Your task to perform on an android device: add a contact Image 0: 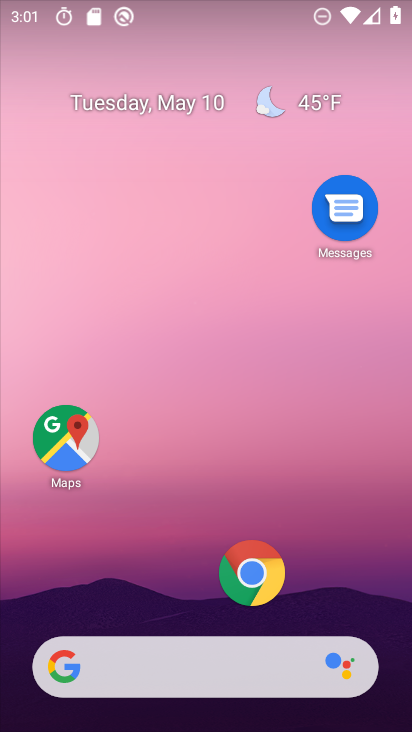
Step 0: drag from (208, 609) to (193, 307)
Your task to perform on an android device: add a contact Image 1: 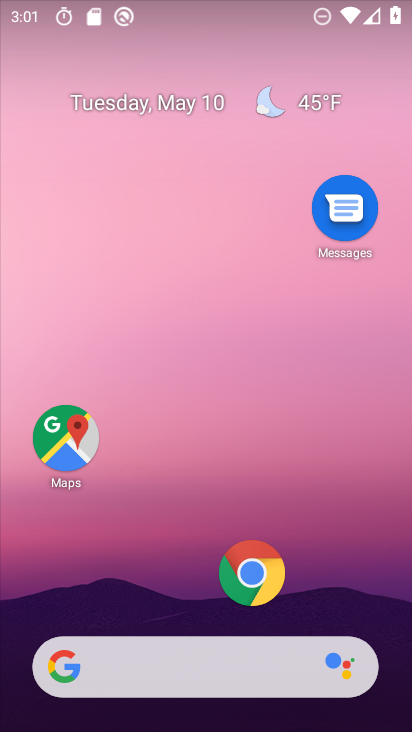
Step 1: drag from (230, 621) to (318, 146)
Your task to perform on an android device: add a contact Image 2: 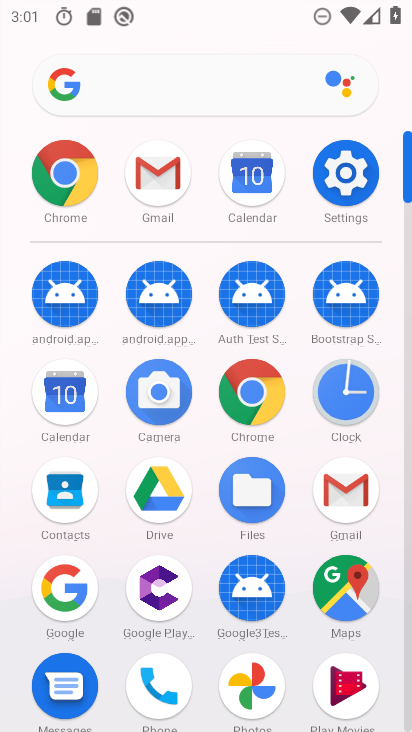
Step 2: click (59, 474)
Your task to perform on an android device: add a contact Image 3: 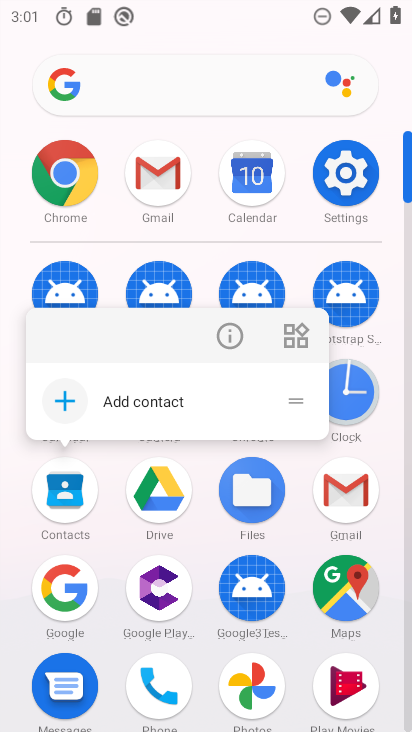
Step 3: click (214, 343)
Your task to perform on an android device: add a contact Image 4: 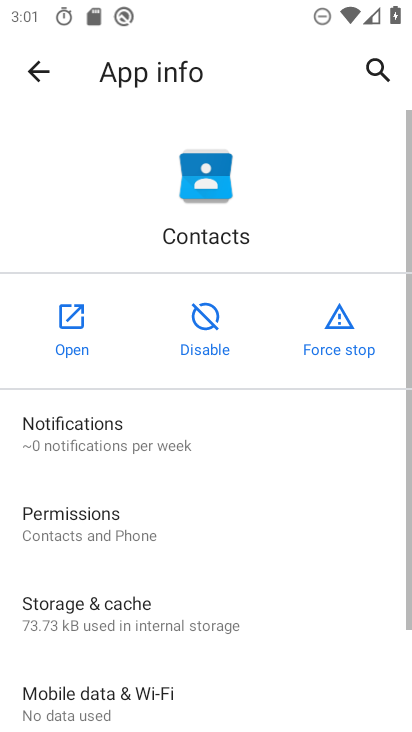
Step 4: click (86, 342)
Your task to perform on an android device: add a contact Image 5: 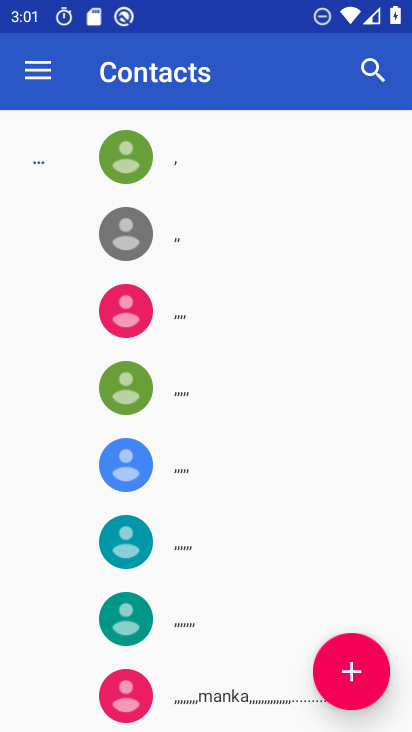
Step 5: drag from (202, 374) to (200, 536)
Your task to perform on an android device: add a contact Image 6: 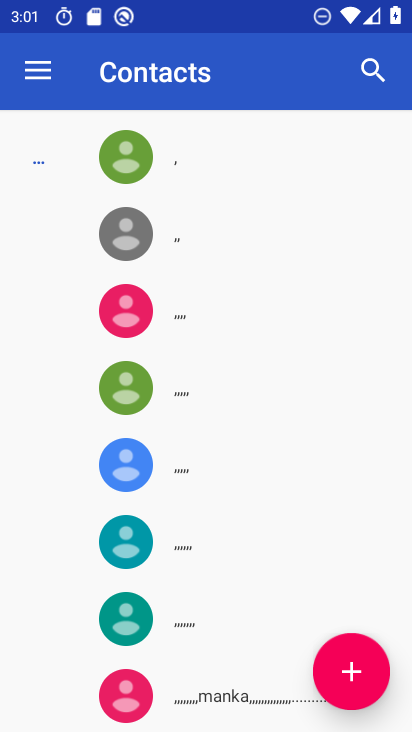
Step 6: click (358, 669)
Your task to perform on an android device: add a contact Image 7: 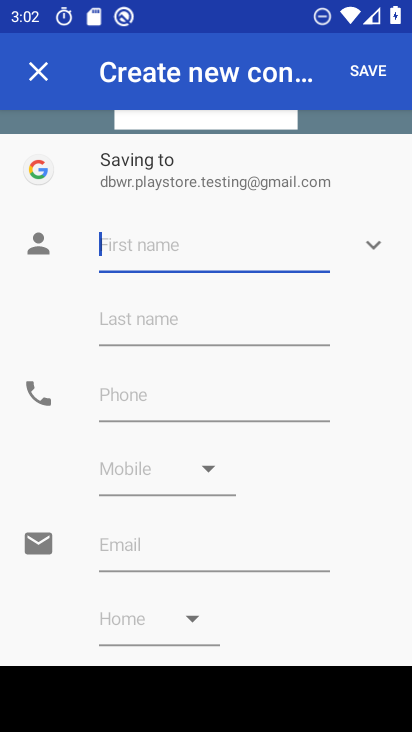
Step 7: click (180, 234)
Your task to perform on an android device: add a contact Image 8: 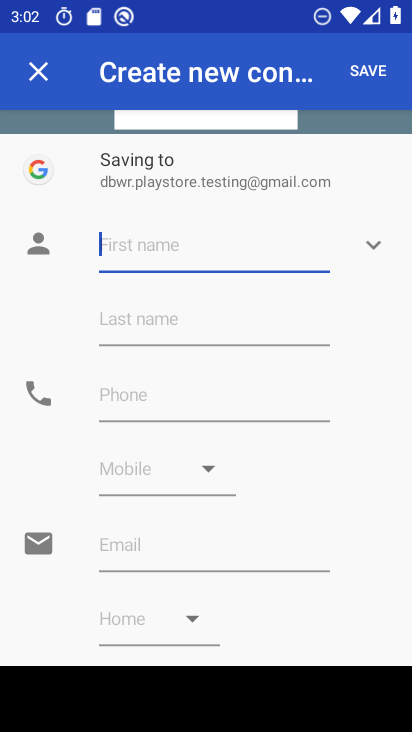
Step 8: type "asdf"
Your task to perform on an android device: add a contact Image 9: 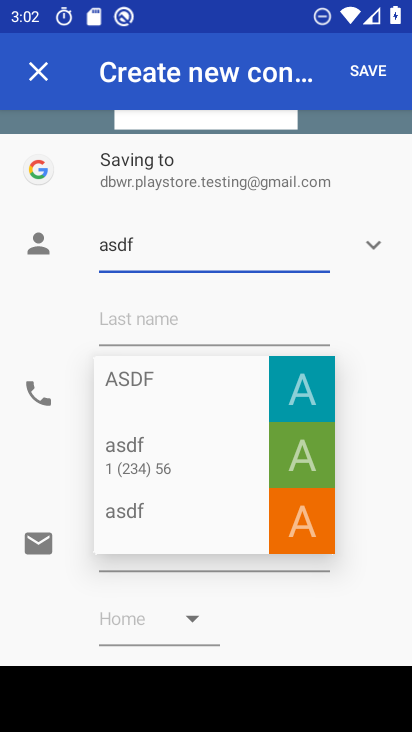
Step 9: type "tkl"
Your task to perform on an android device: add a contact Image 10: 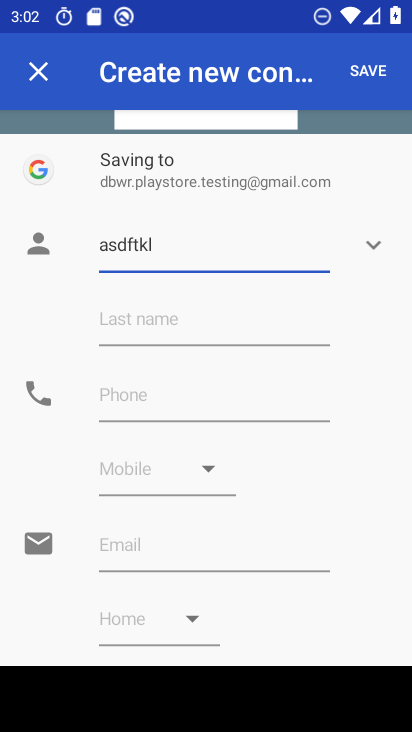
Step 10: click (364, 80)
Your task to perform on an android device: add a contact Image 11: 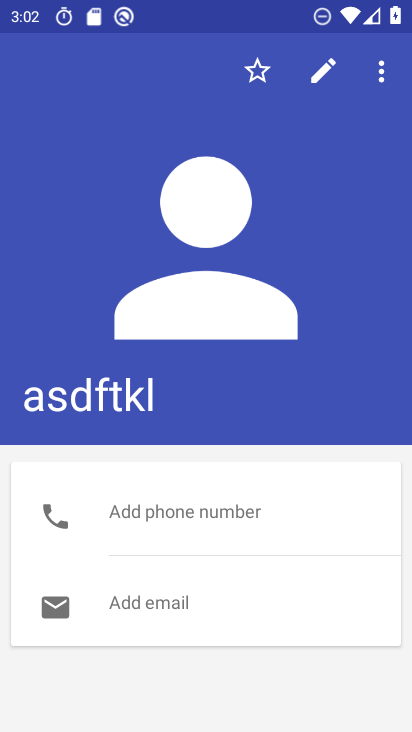
Step 11: task complete